Your task to perform on an android device: turn notification dots off Image 0: 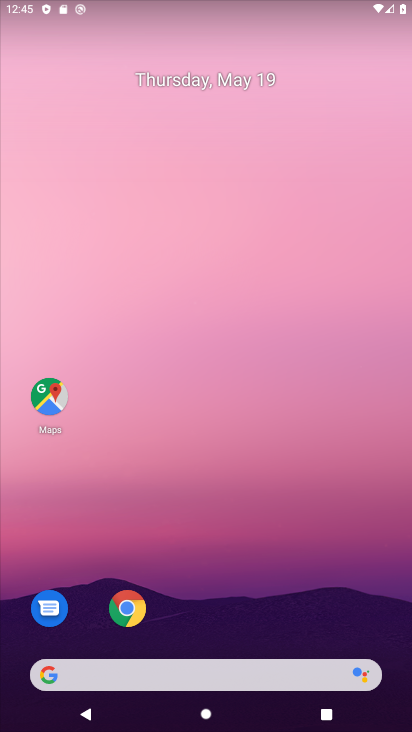
Step 0: drag from (224, 637) to (218, 217)
Your task to perform on an android device: turn notification dots off Image 1: 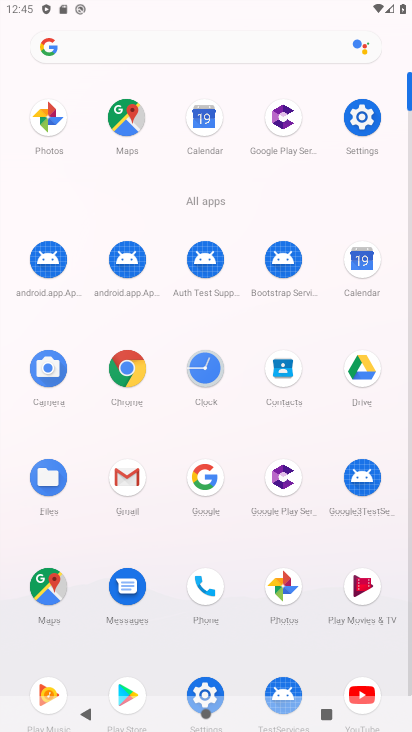
Step 1: drag from (229, 633) to (238, 460)
Your task to perform on an android device: turn notification dots off Image 2: 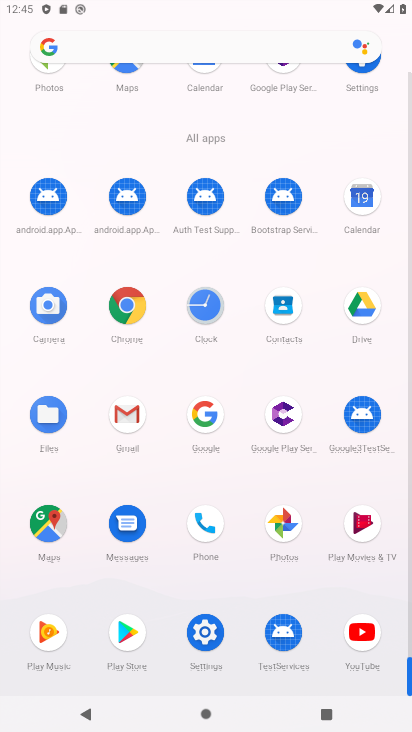
Step 2: click (207, 633)
Your task to perform on an android device: turn notification dots off Image 3: 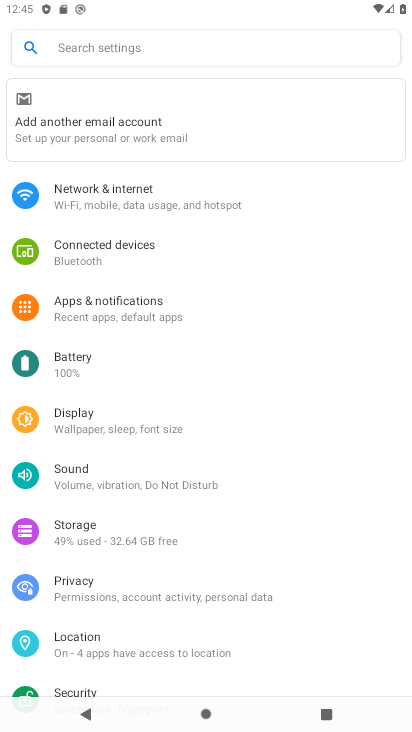
Step 3: click (129, 317)
Your task to perform on an android device: turn notification dots off Image 4: 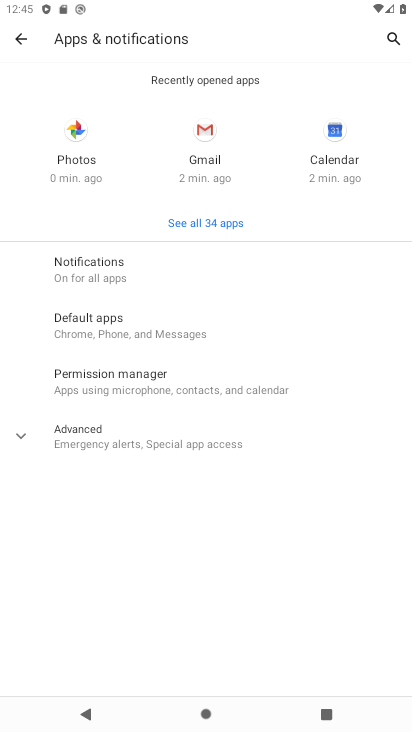
Step 4: click (118, 281)
Your task to perform on an android device: turn notification dots off Image 5: 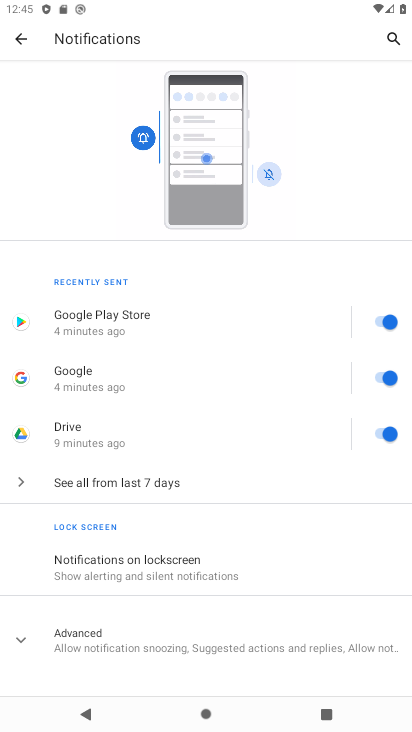
Step 5: click (155, 642)
Your task to perform on an android device: turn notification dots off Image 6: 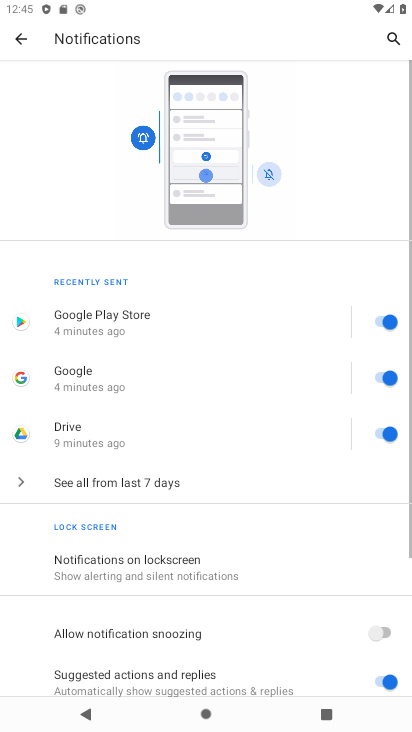
Step 6: task complete